Your task to perform on an android device: turn on airplane mode Image 0: 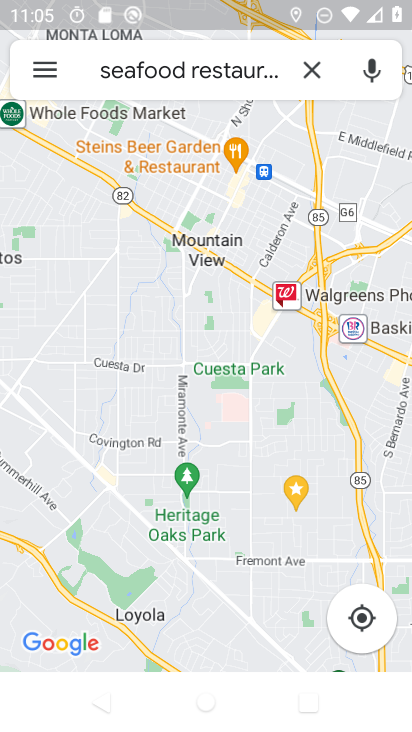
Step 0: press home button
Your task to perform on an android device: turn on airplane mode Image 1: 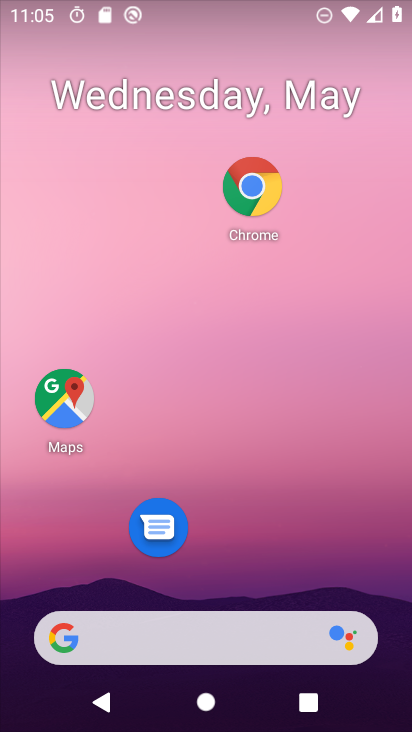
Step 1: drag from (245, 585) to (282, 336)
Your task to perform on an android device: turn on airplane mode Image 2: 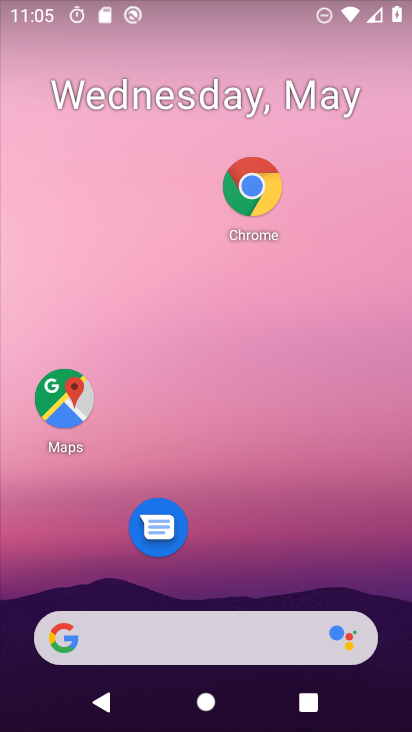
Step 2: drag from (217, 596) to (293, 297)
Your task to perform on an android device: turn on airplane mode Image 3: 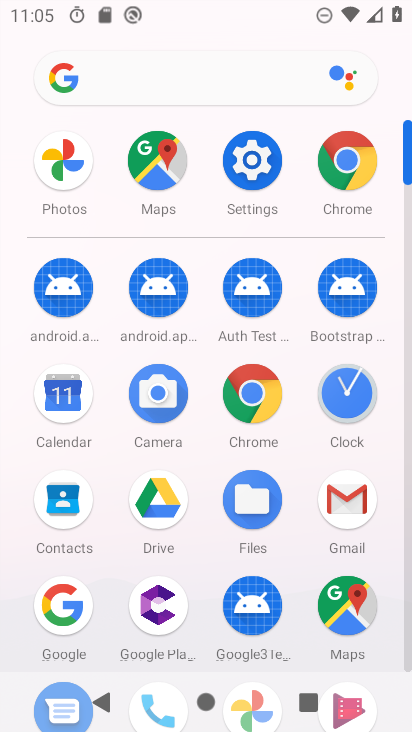
Step 3: click (244, 186)
Your task to perform on an android device: turn on airplane mode Image 4: 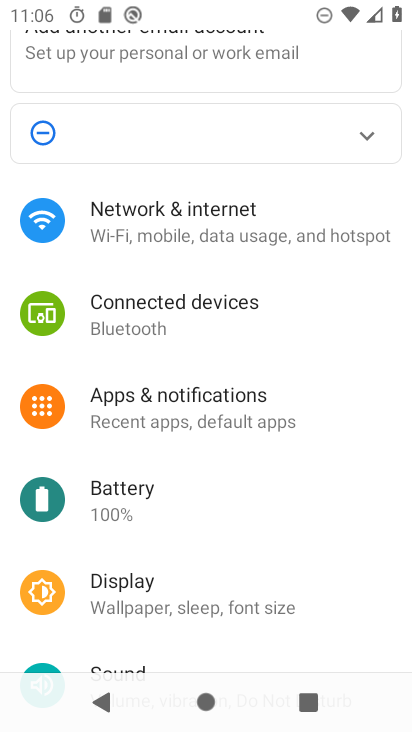
Step 4: click (240, 207)
Your task to perform on an android device: turn on airplane mode Image 5: 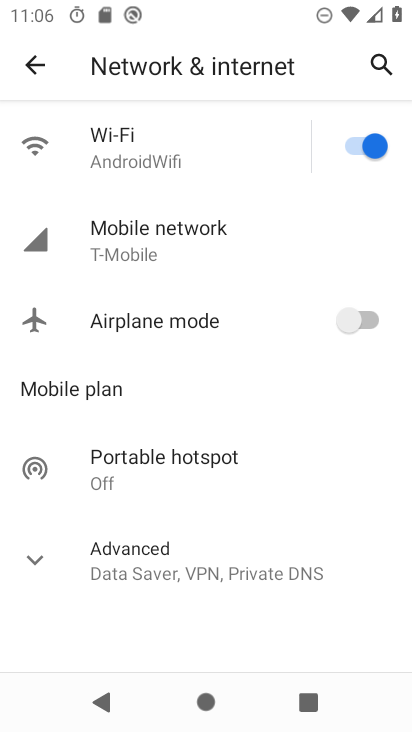
Step 5: click (287, 327)
Your task to perform on an android device: turn on airplane mode Image 6: 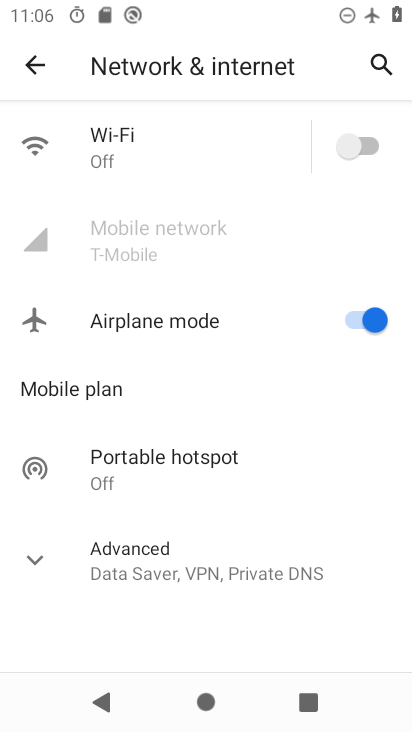
Step 6: task complete